Your task to perform on an android device: open chrome and create a bookmark for the current page Image 0: 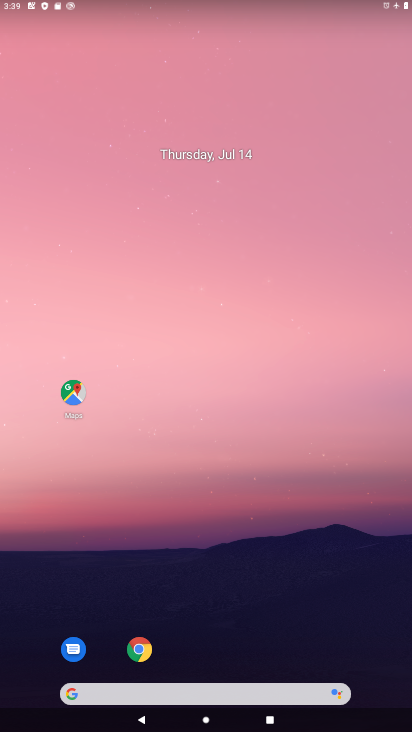
Step 0: click (135, 654)
Your task to perform on an android device: open chrome and create a bookmark for the current page Image 1: 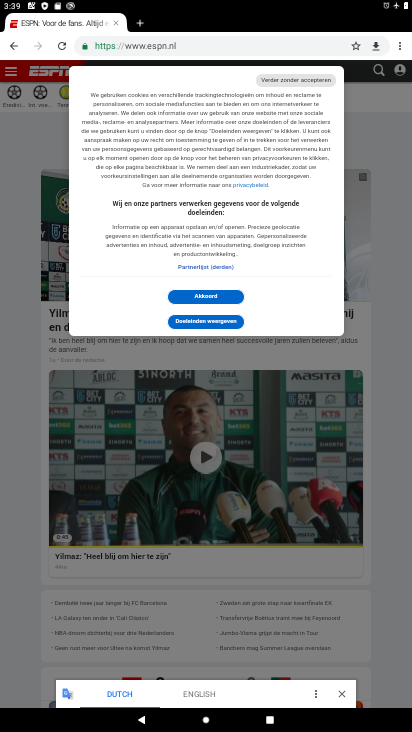
Step 1: click (357, 43)
Your task to perform on an android device: open chrome and create a bookmark for the current page Image 2: 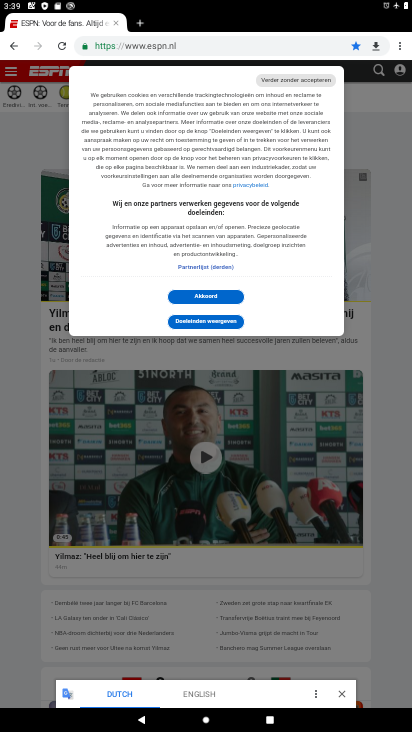
Step 2: task complete